Your task to perform on an android device: Open the calendar and show me this week's events? Image 0: 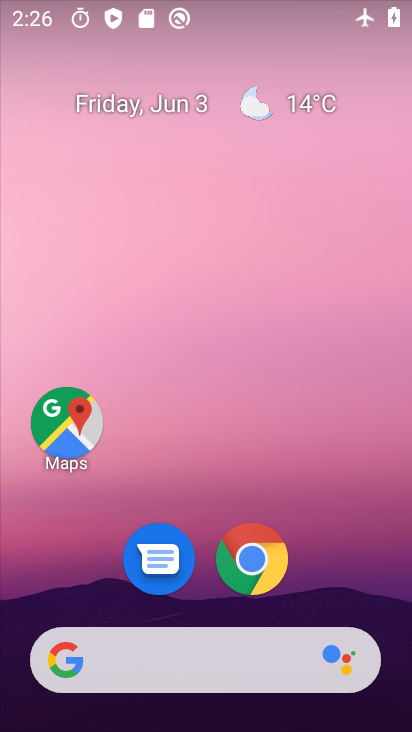
Step 0: drag from (183, 603) to (303, 12)
Your task to perform on an android device: Open the calendar and show me this week's events? Image 1: 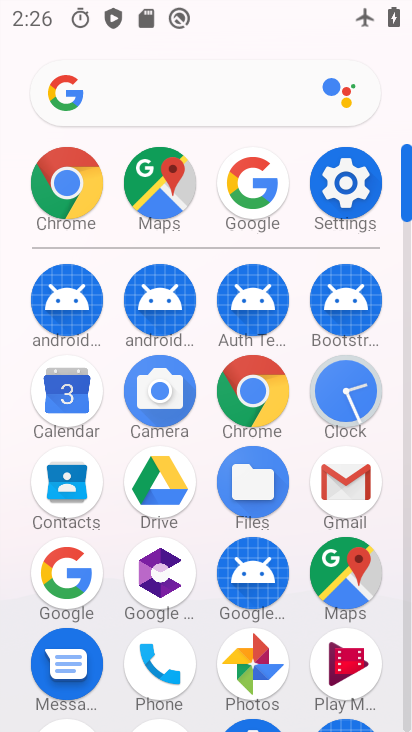
Step 1: click (69, 404)
Your task to perform on an android device: Open the calendar and show me this week's events? Image 2: 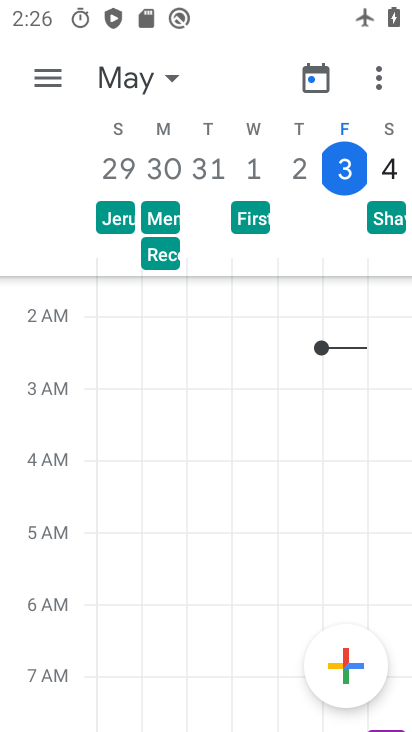
Step 2: click (53, 77)
Your task to perform on an android device: Open the calendar and show me this week's events? Image 3: 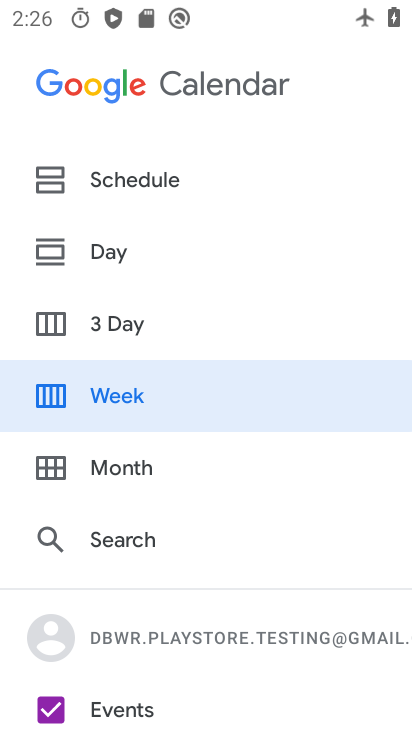
Step 3: click (104, 402)
Your task to perform on an android device: Open the calendar and show me this week's events? Image 4: 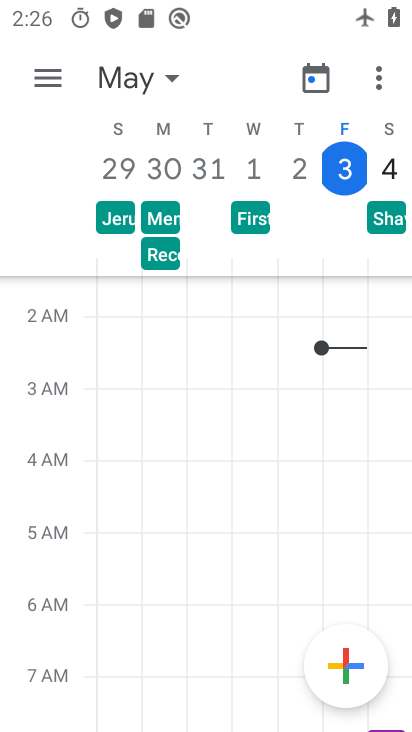
Step 4: task complete